Your task to perform on an android device: turn off notifications in google photos Image 0: 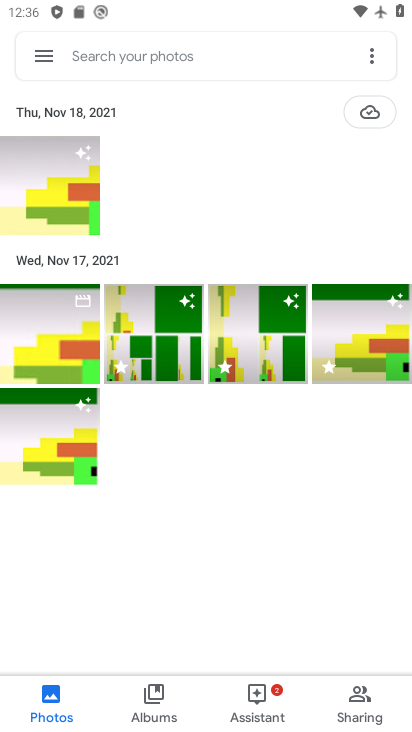
Step 0: press home button
Your task to perform on an android device: turn off notifications in google photos Image 1: 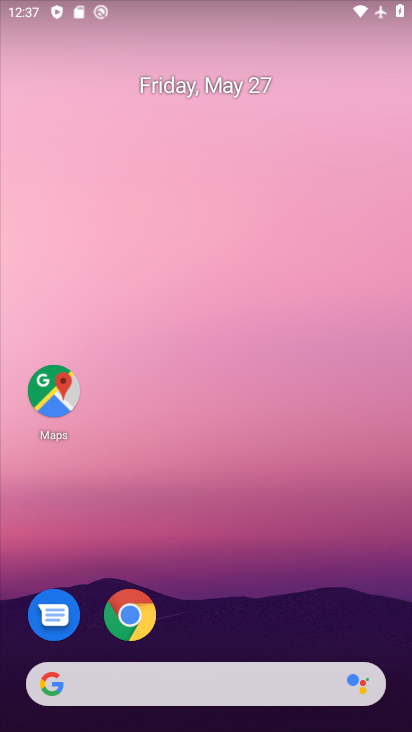
Step 1: drag from (267, 602) to (174, 166)
Your task to perform on an android device: turn off notifications in google photos Image 2: 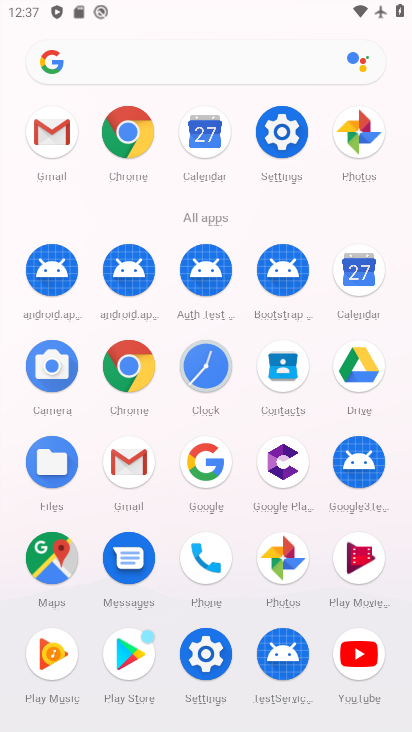
Step 2: click (291, 556)
Your task to perform on an android device: turn off notifications in google photos Image 3: 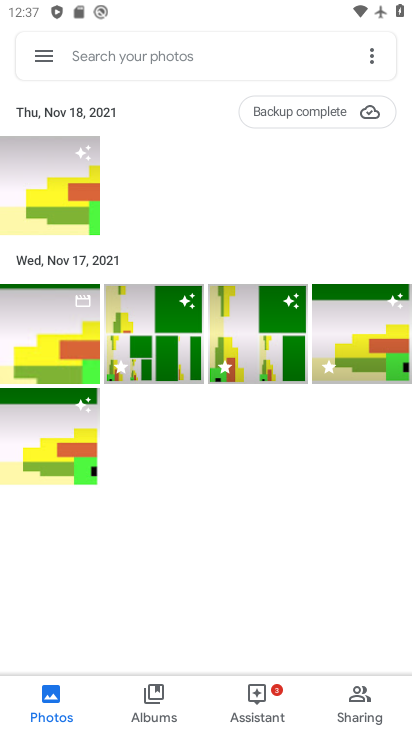
Step 3: click (45, 58)
Your task to perform on an android device: turn off notifications in google photos Image 4: 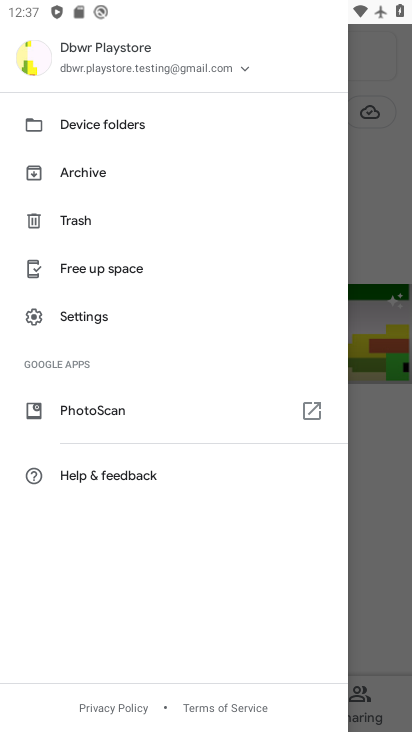
Step 4: click (82, 315)
Your task to perform on an android device: turn off notifications in google photos Image 5: 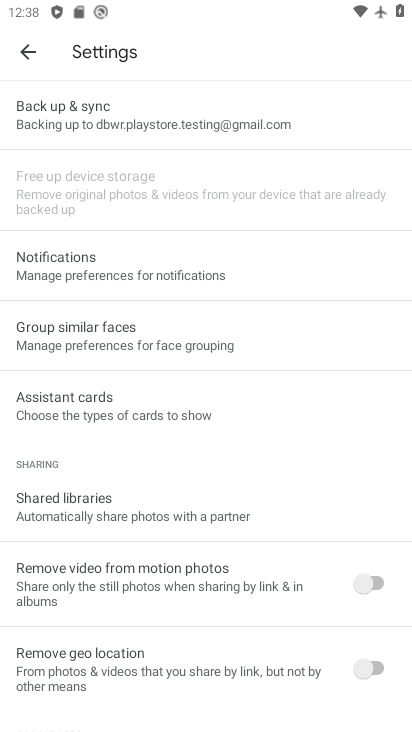
Step 5: click (61, 263)
Your task to perform on an android device: turn off notifications in google photos Image 6: 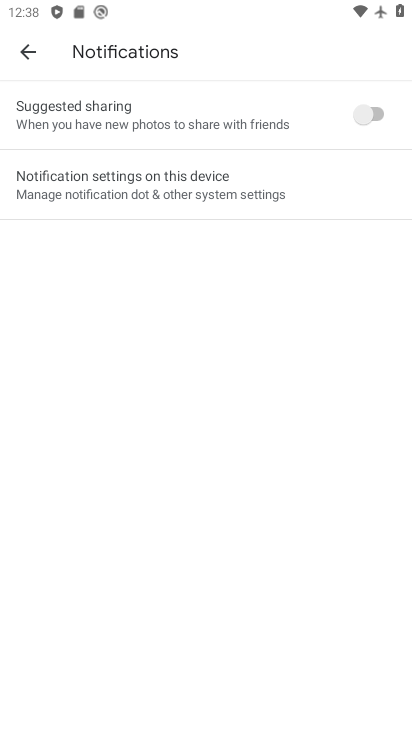
Step 6: click (148, 175)
Your task to perform on an android device: turn off notifications in google photos Image 7: 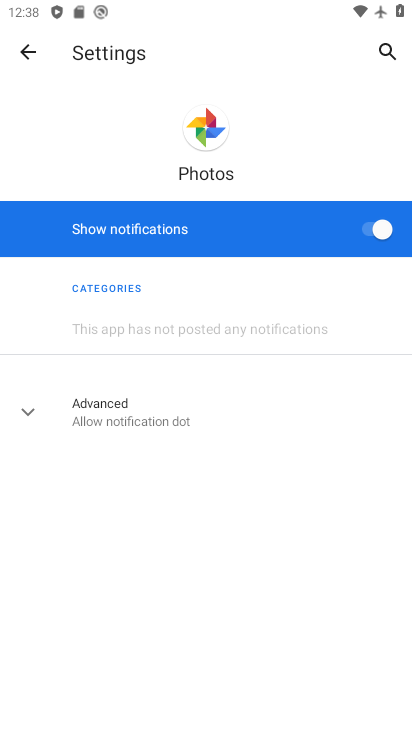
Step 7: click (389, 234)
Your task to perform on an android device: turn off notifications in google photos Image 8: 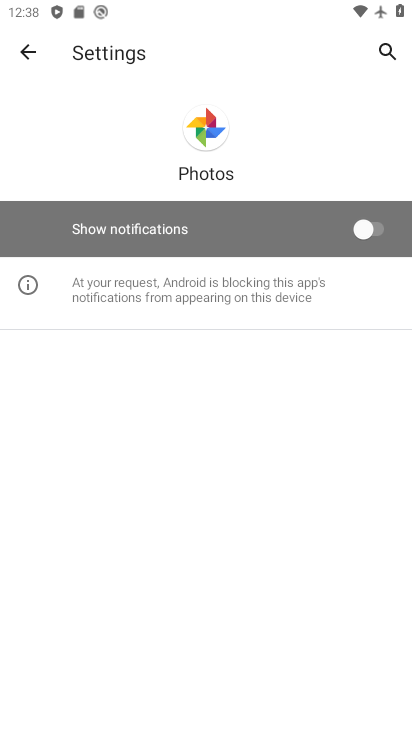
Step 8: task complete